Your task to perform on an android device: turn on javascript in the chrome app Image 0: 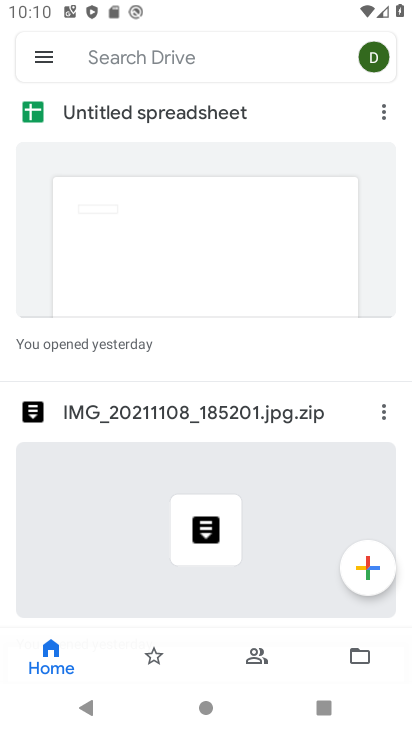
Step 0: press home button
Your task to perform on an android device: turn on javascript in the chrome app Image 1: 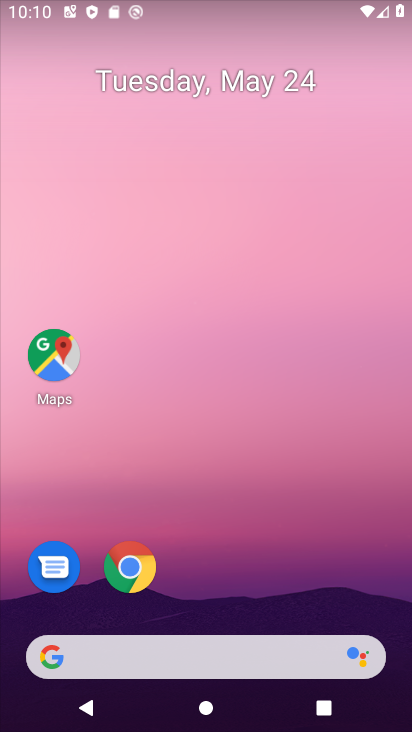
Step 1: drag from (394, 685) to (345, 226)
Your task to perform on an android device: turn on javascript in the chrome app Image 2: 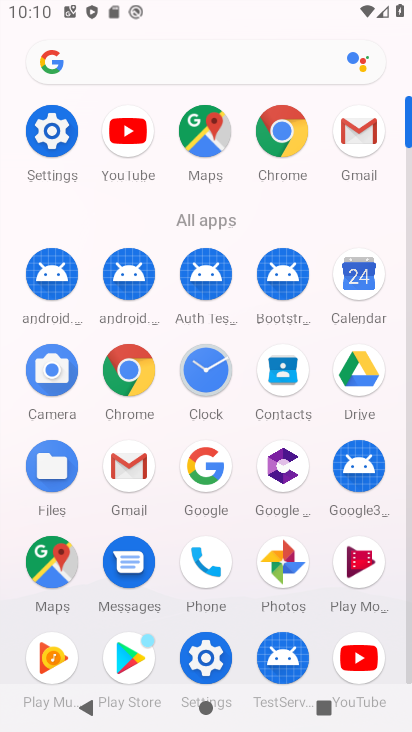
Step 2: click (125, 367)
Your task to perform on an android device: turn on javascript in the chrome app Image 3: 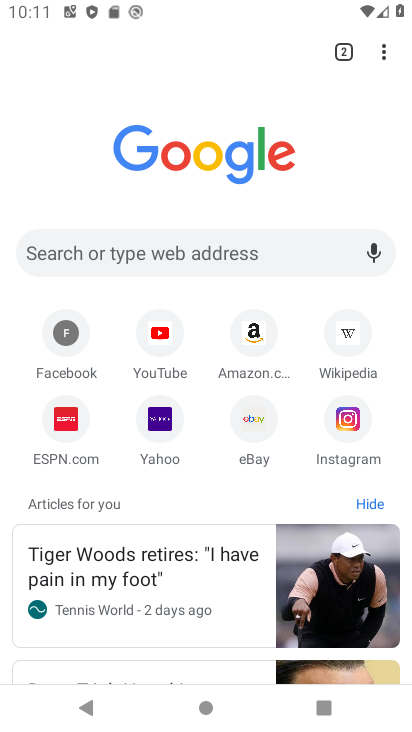
Step 3: click (384, 47)
Your task to perform on an android device: turn on javascript in the chrome app Image 4: 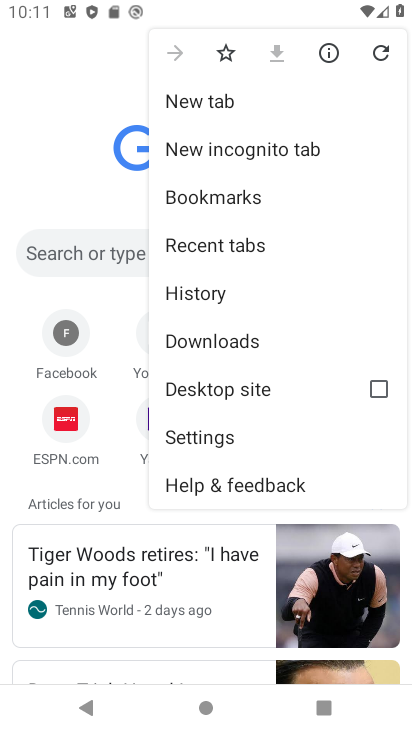
Step 4: click (210, 434)
Your task to perform on an android device: turn on javascript in the chrome app Image 5: 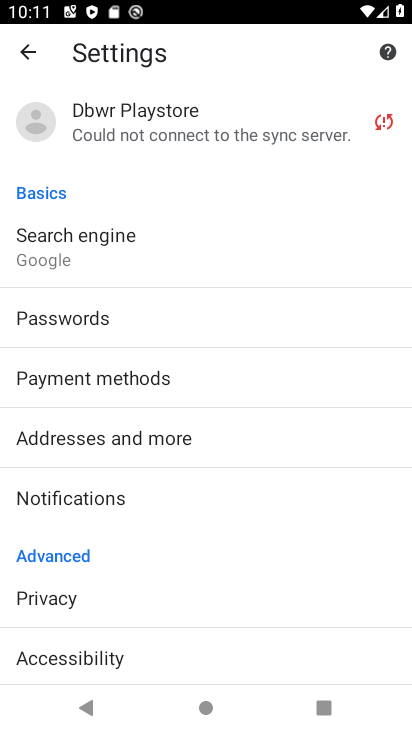
Step 5: drag from (231, 667) to (229, 353)
Your task to perform on an android device: turn on javascript in the chrome app Image 6: 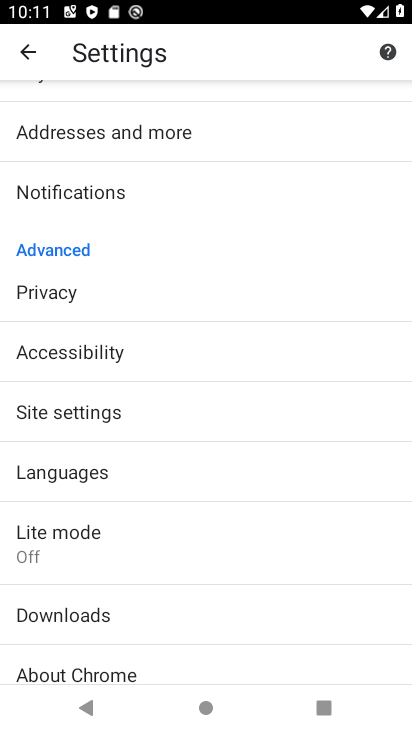
Step 6: click (79, 411)
Your task to perform on an android device: turn on javascript in the chrome app Image 7: 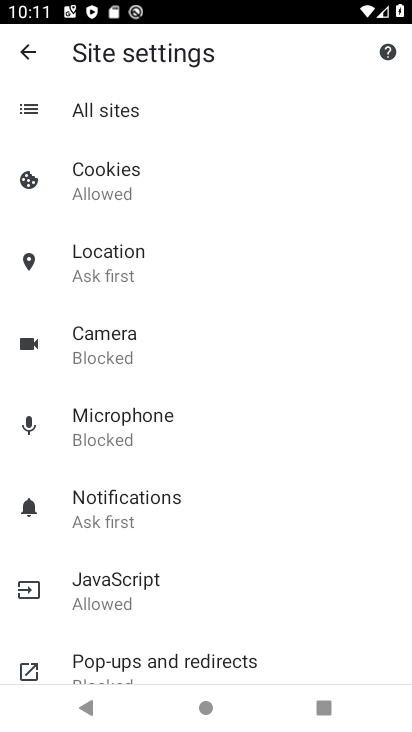
Step 7: click (124, 589)
Your task to perform on an android device: turn on javascript in the chrome app Image 8: 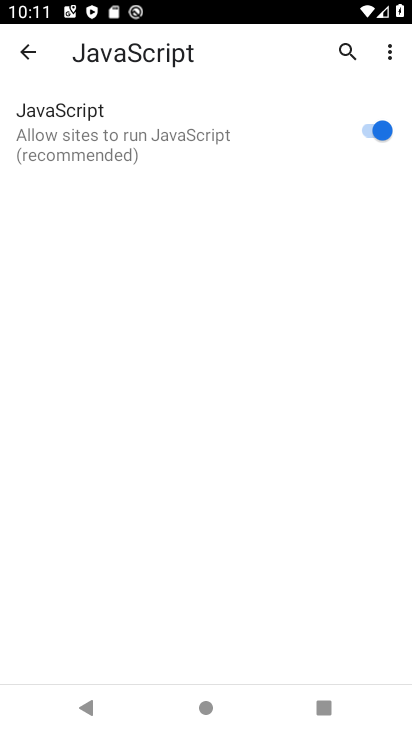
Step 8: task complete